Your task to perform on an android device: What's the weather going to be tomorrow? Image 0: 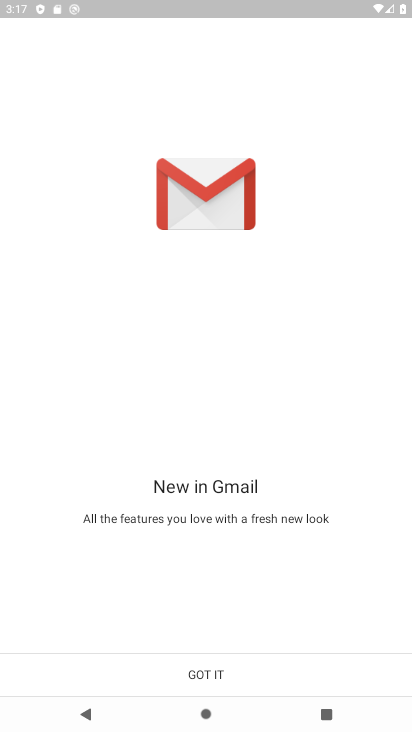
Step 0: press home button
Your task to perform on an android device: What's the weather going to be tomorrow? Image 1: 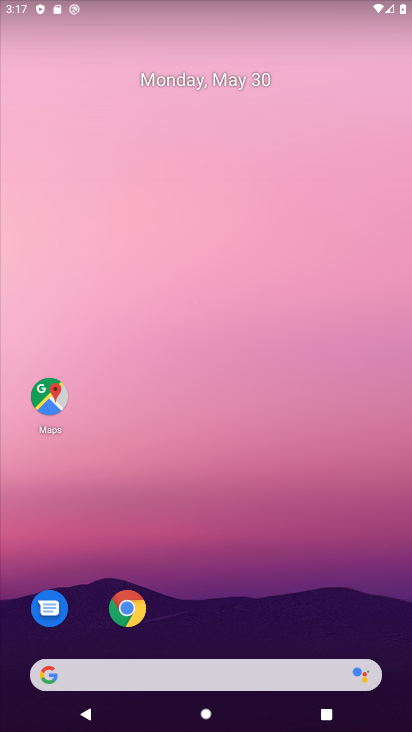
Step 1: drag from (173, 497) to (183, 113)
Your task to perform on an android device: What's the weather going to be tomorrow? Image 2: 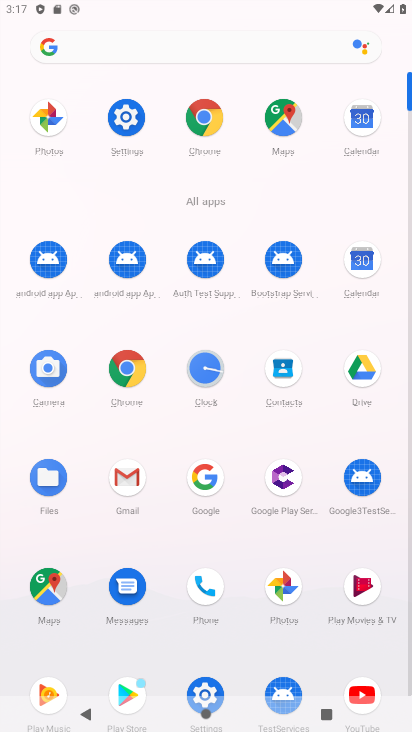
Step 2: click (123, 368)
Your task to perform on an android device: What's the weather going to be tomorrow? Image 3: 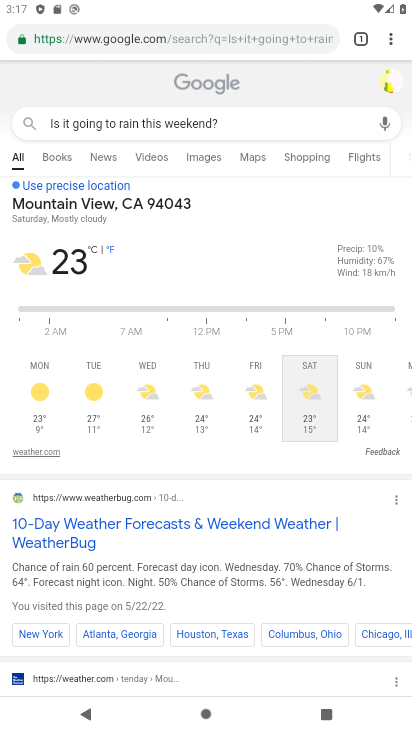
Step 3: click (388, 37)
Your task to perform on an android device: What's the weather going to be tomorrow? Image 4: 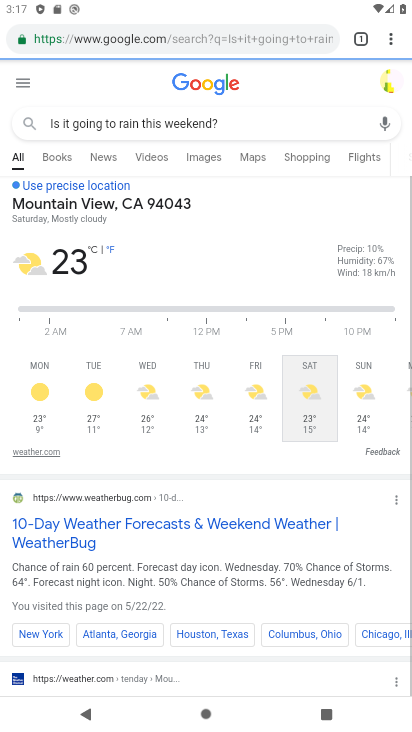
Step 4: click (385, 44)
Your task to perform on an android device: What's the weather going to be tomorrow? Image 5: 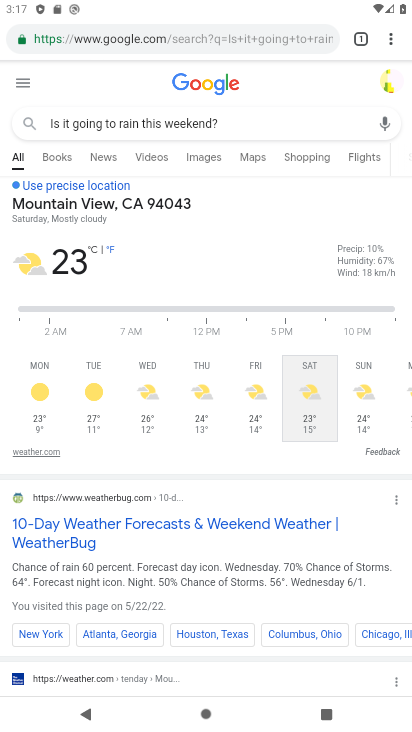
Step 5: click (381, 36)
Your task to perform on an android device: What's the weather going to be tomorrow? Image 6: 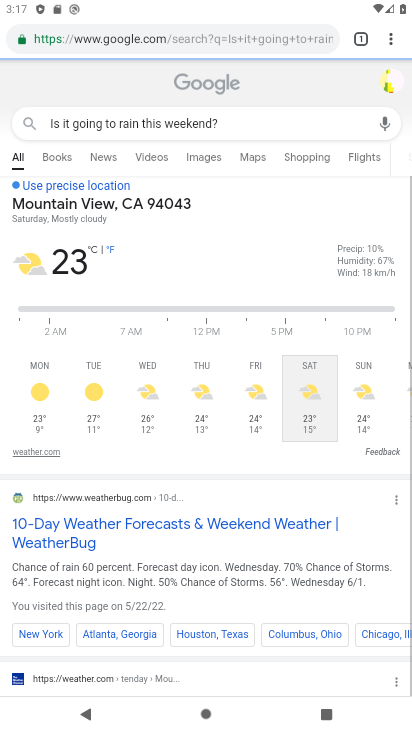
Step 6: click (384, 39)
Your task to perform on an android device: What's the weather going to be tomorrow? Image 7: 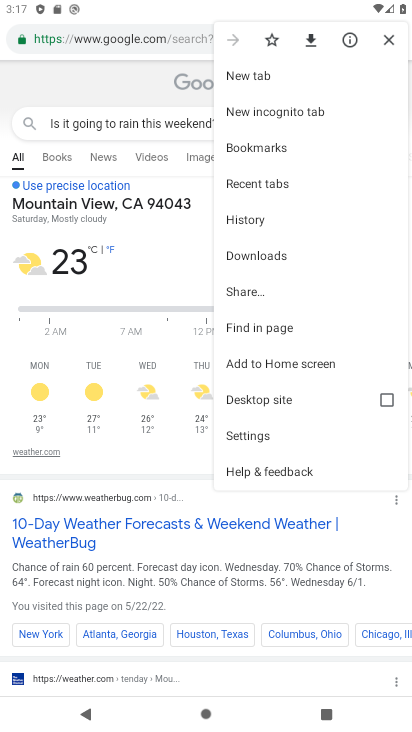
Step 7: click (256, 69)
Your task to perform on an android device: What's the weather going to be tomorrow? Image 8: 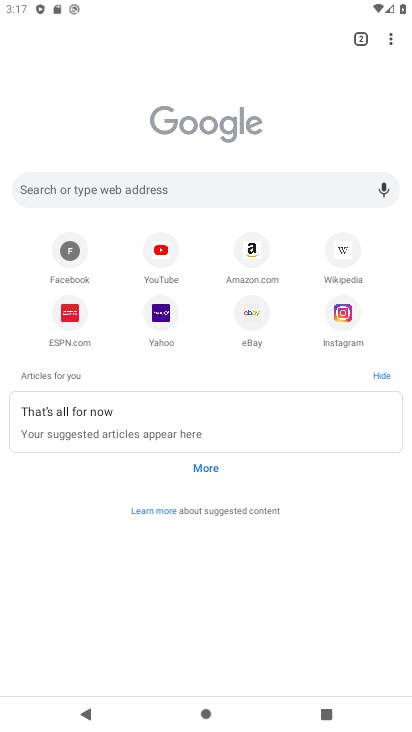
Step 8: click (206, 183)
Your task to perform on an android device: What's the weather going to be tomorrow? Image 9: 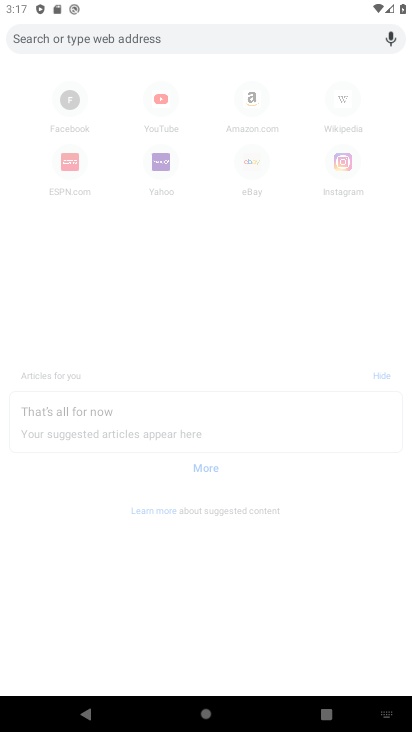
Step 9: type "What's the weather going to be tomorrow?"
Your task to perform on an android device: What's the weather going to be tomorrow? Image 10: 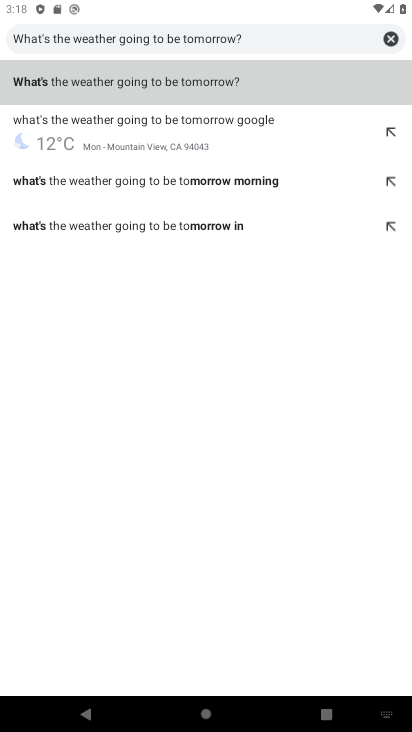
Step 10: click (203, 82)
Your task to perform on an android device: What's the weather going to be tomorrow? Image 11: 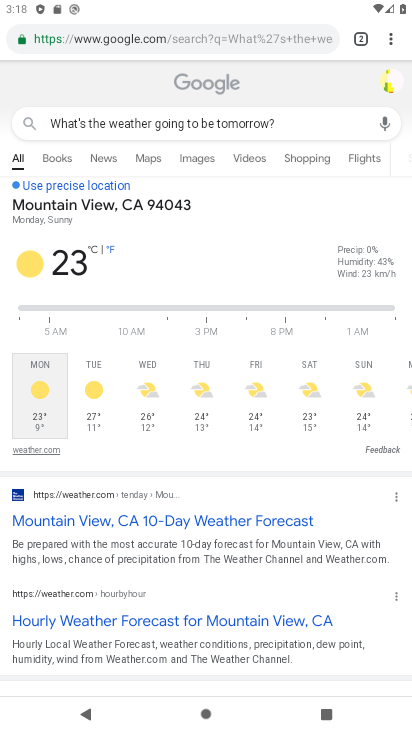
Step 11: task complete